Your task to perform on an android device: Open Android settings Image 0: 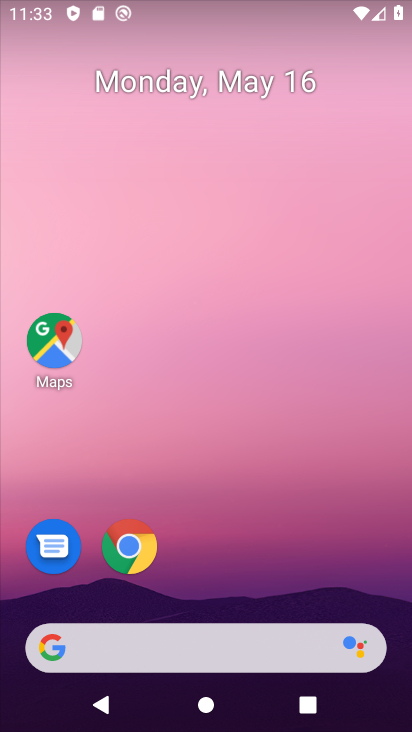
Step 0: drag from (309, 552) to (265, 16)
Your task to perform on an android device: Open Android settings Image 1: 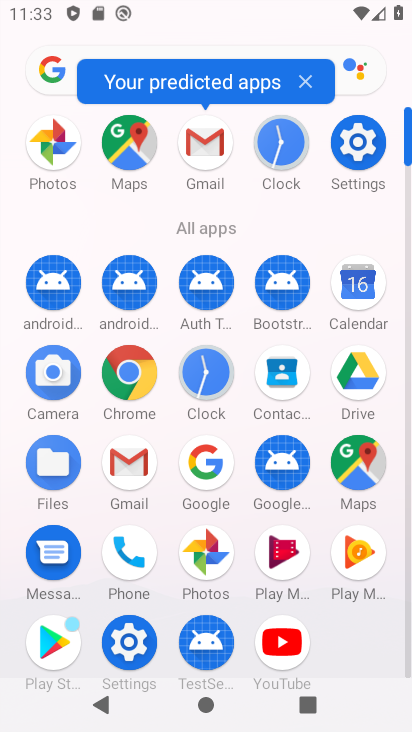
Step 1: click (366, 136)
Your task to perform on an android device: Open Android settings Image 2: 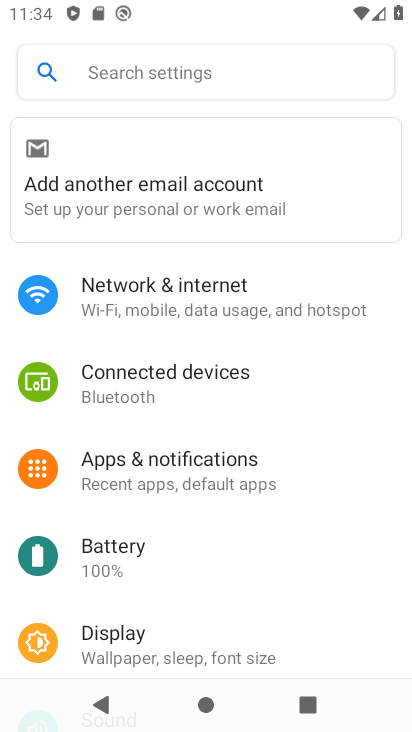
Step 2: drag from (154, 632) to (189, 160)
Your task to perform on an android device: Open Android settings Image 3: 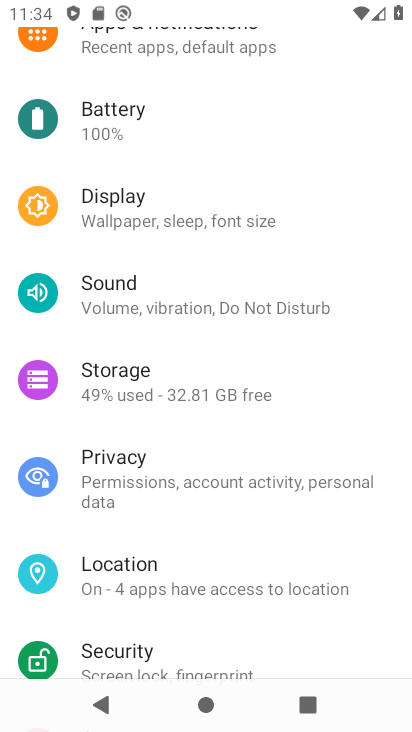
Step 3: drag from (148, 530) to (211, 185)
Your task to perform on an android device: Open Android settings Image 4: 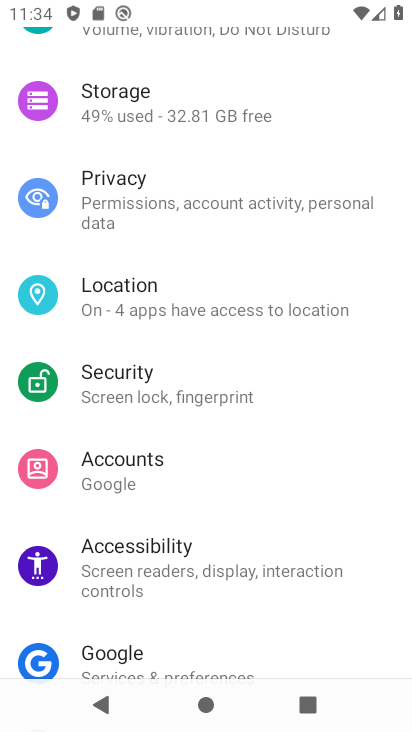
Step 4: drag from (143, 571) to (183, 186)
Your task to perform on an android device: Open Android settings Image 5: 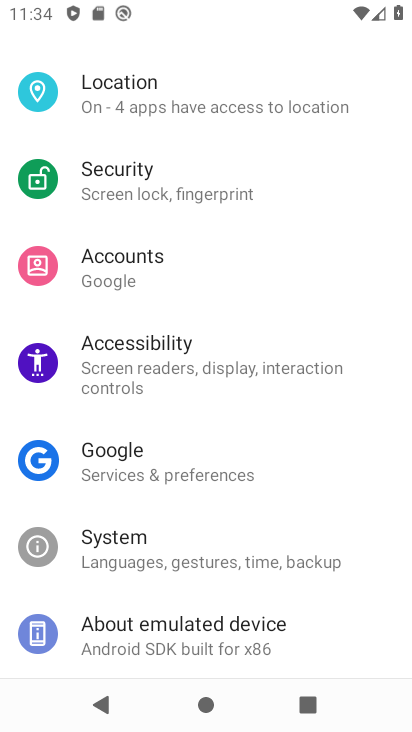
Step 5: click (137, 636)
Your task to perform on an android device: Open Android settings Image 6: 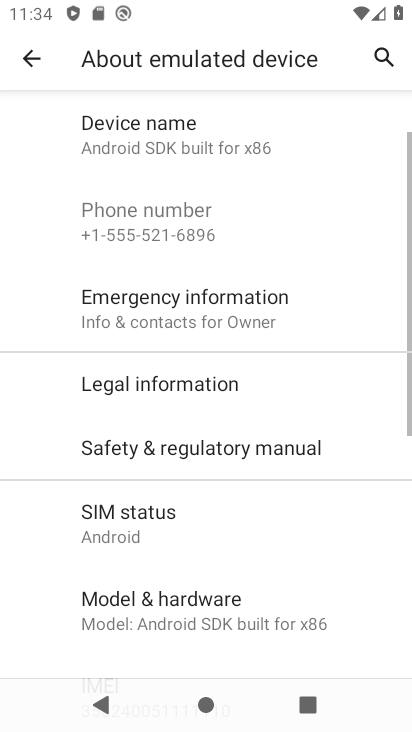
Step 6: task complete